Your task to perform on an android device: check the backup settings in the google photos Image 0: 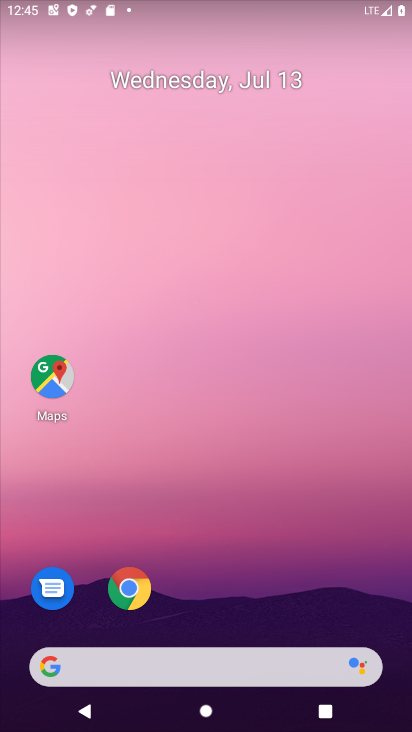
Step 0: drag from (393, 641) to (329, 105)
Your task to perform on an android device: check the backup settings in the google photos Image 1: 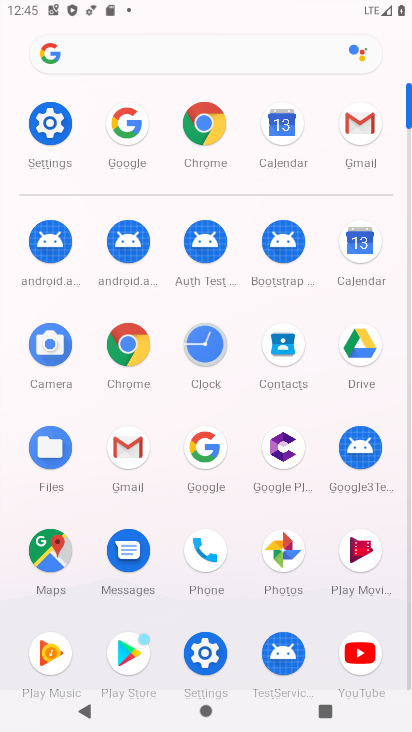
Step 1: click (280, 553)
Your task to perform on an android device: check the backup settings in the google photos Image 2: 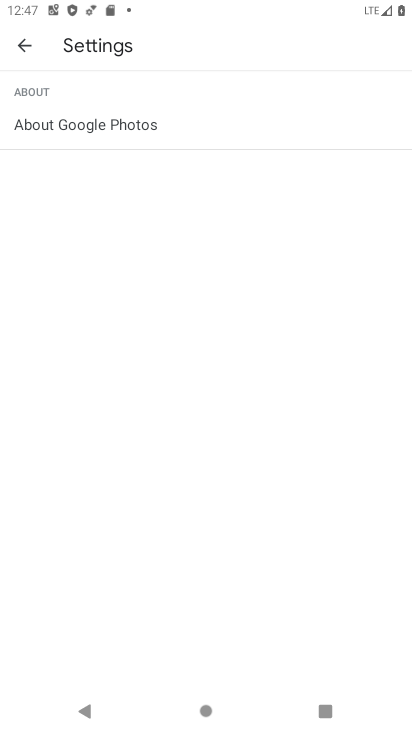
Step 2: press home button
Your task to perform on an android device: check the backup settings in the google photos Image 3: 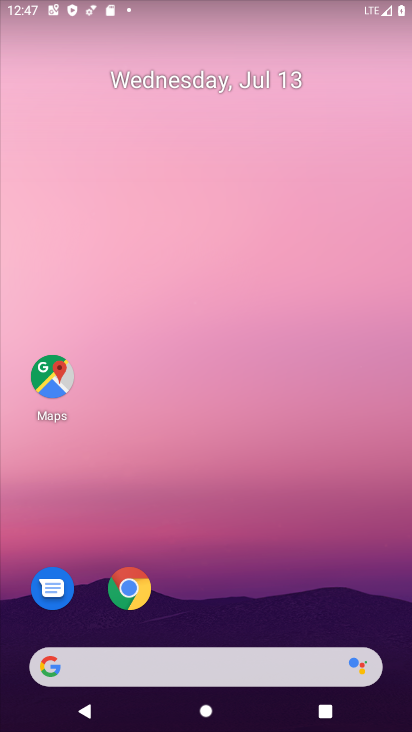
Step 3: drag from (385, 627) to (359, 264)
Your task to perform on an android device: check the backup settings in the google photos Image 4: 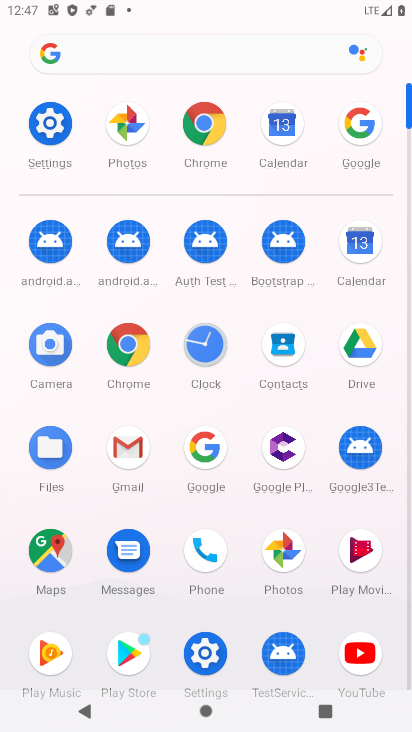
Step 4: click (277, 553)
Your task to perform on an android device: check the backup settings in the google photos Image 5: 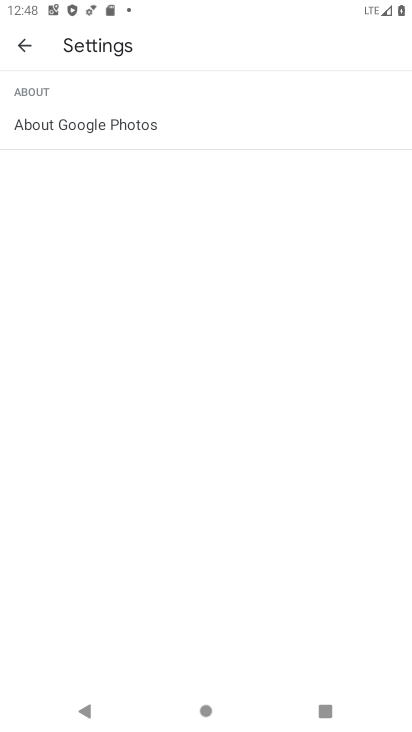
Step 5: task complete